Your task to perform on an android device: find which apps use the phone's location Image 0: 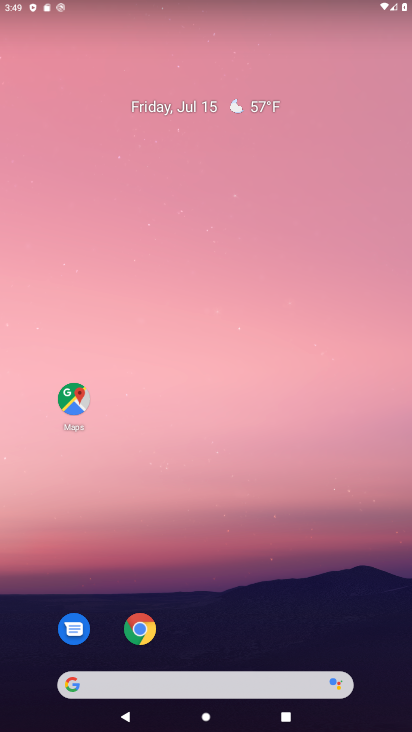
Step 0: press home button
Your task to perform on an android device: find which apps use the phone's location Image 1: 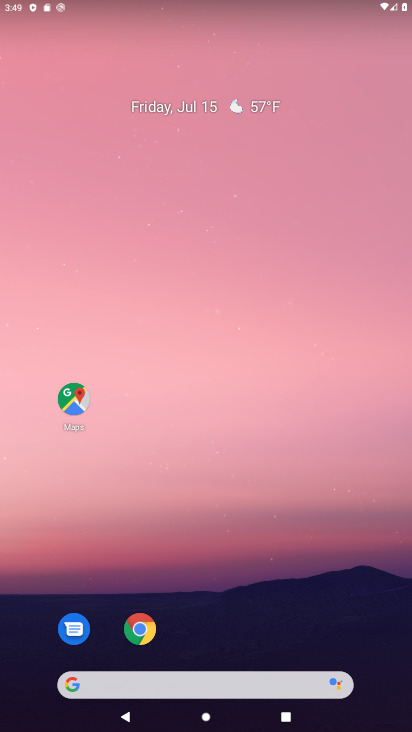
Step 1: drag from (259, 568) to (248, 94)
Your task to perform on an android device: find which apps use the phone's location Image 2: 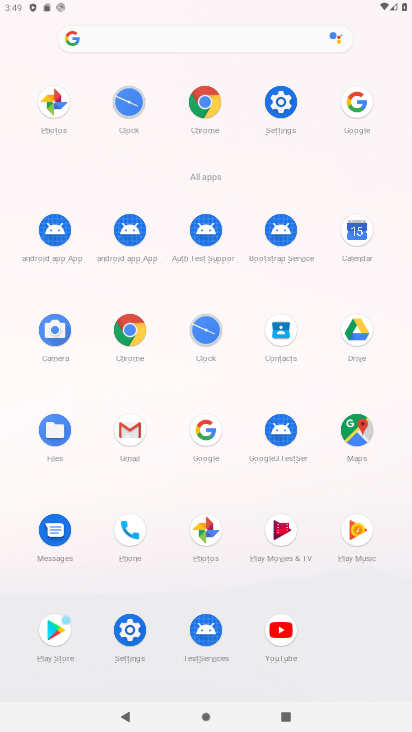
Step 2: click (284, 96)
Your task to perform on an android device: find which apps use the phone's location Image 3: 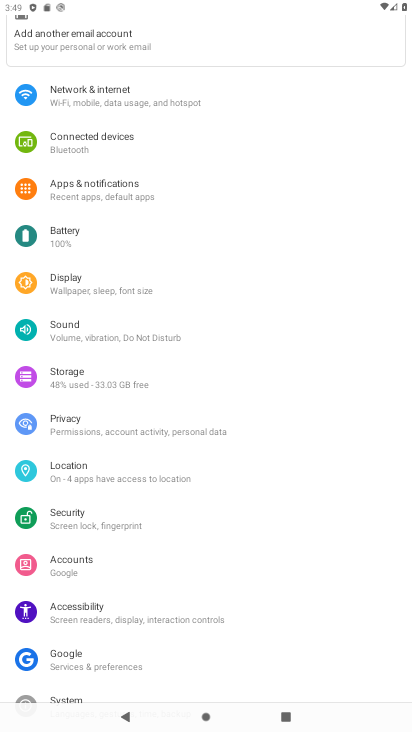
Step 3: click (135, 465)
Your task to perform on an android device: find which apps use the phone's location Image 4: 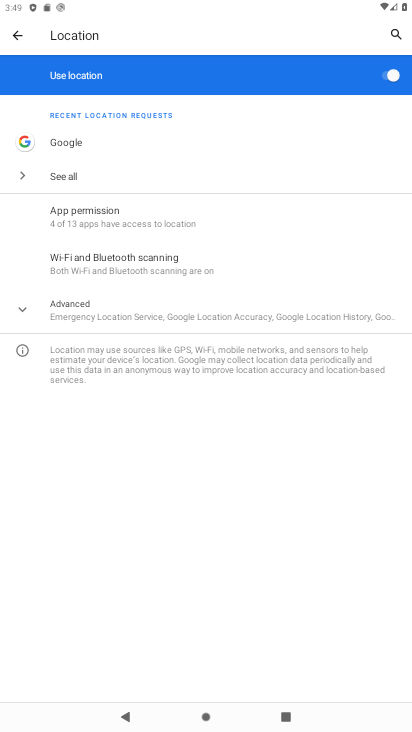
Step 4: click (68, 210)
Your task to perform on an android device: find which apps use the phone's location Image 5: 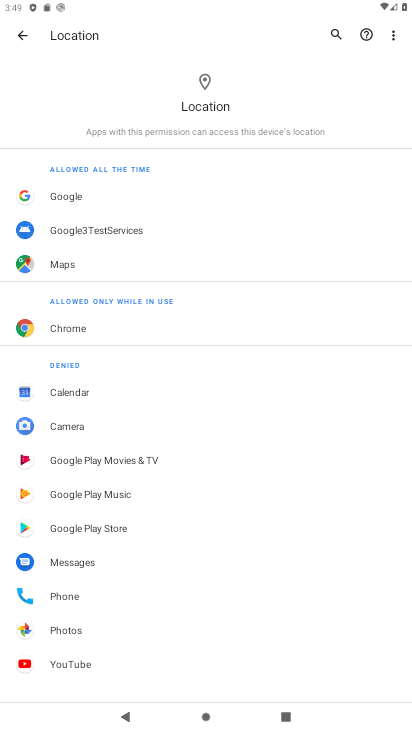
Step 5: task complete